Your task to perform on an android device: Go to Google maps Image 0: 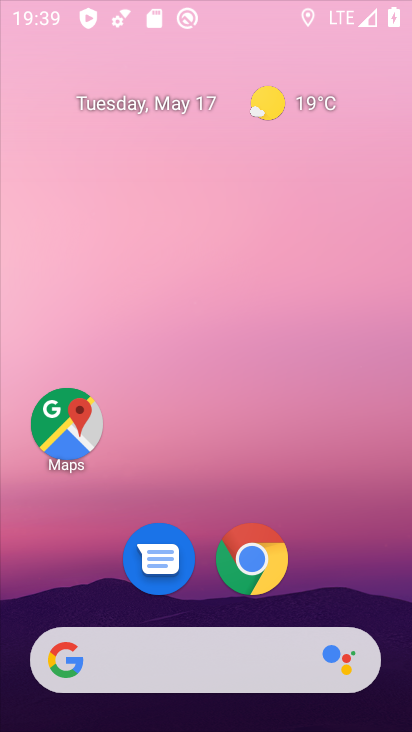
Step 0: drag from (207, 7) to (213, 106)
Your task to perform on an android device: Go to Google maps Image 1: 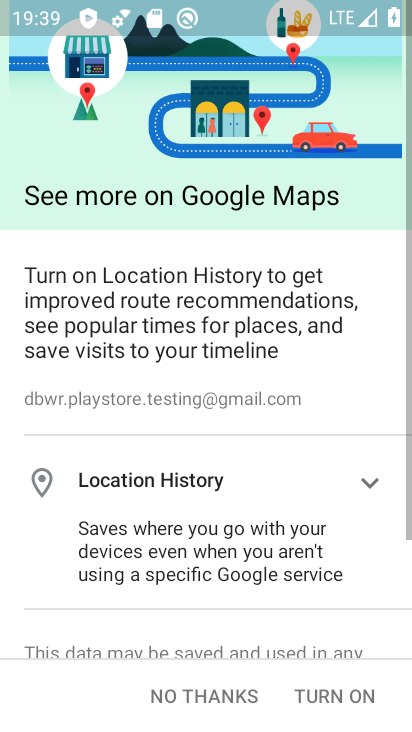
Step 1: press home button
Your task to perform on an android device: Go to Google maps Image 2: 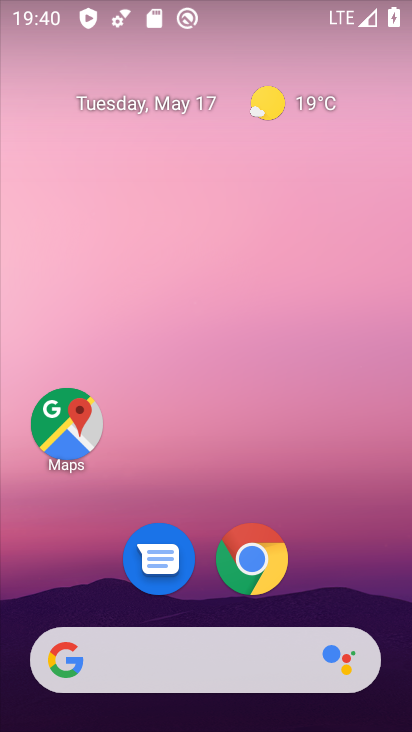
Step 2: drag from (218, 548) to (50, 720)
Your task to perform on an android device: Go to Google maps Image 3: 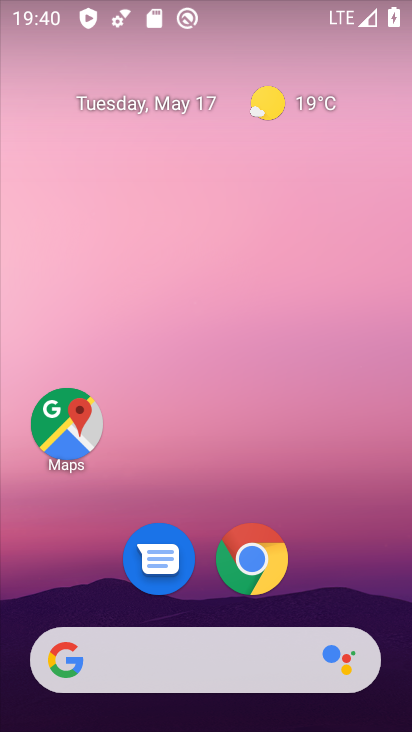
Step 3: drag from (186, 628) to (232, 151)
Your task to perform on an android device: Go to Google maps Image 4: 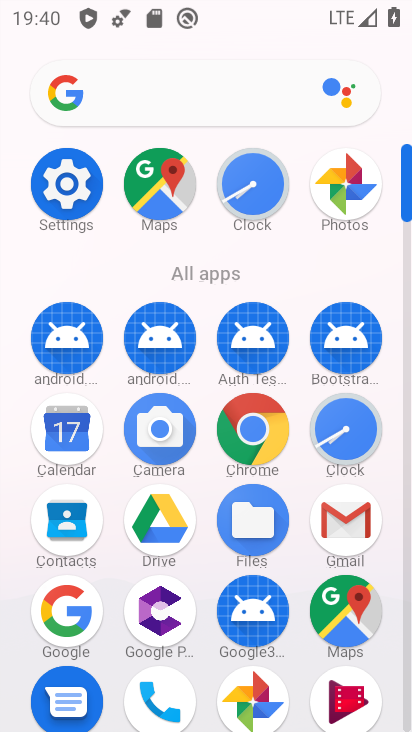
Step 4: click (171, 185)
Your task to perform on an android device: Go to Google maps Image 5: 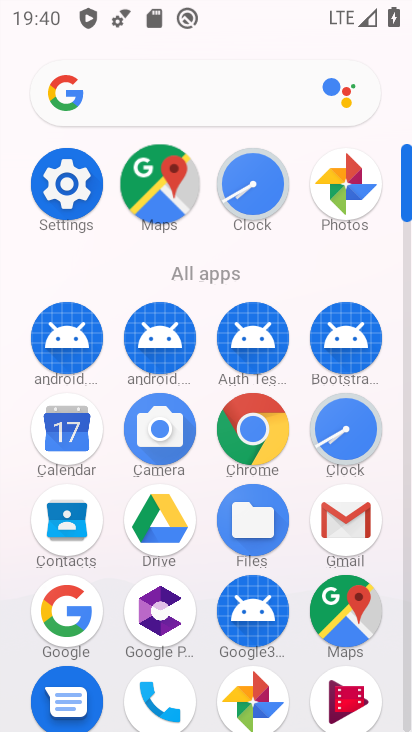
Step 5: click (171, 185)
Your task to perform on an android device: Go to Google maps Image 6: 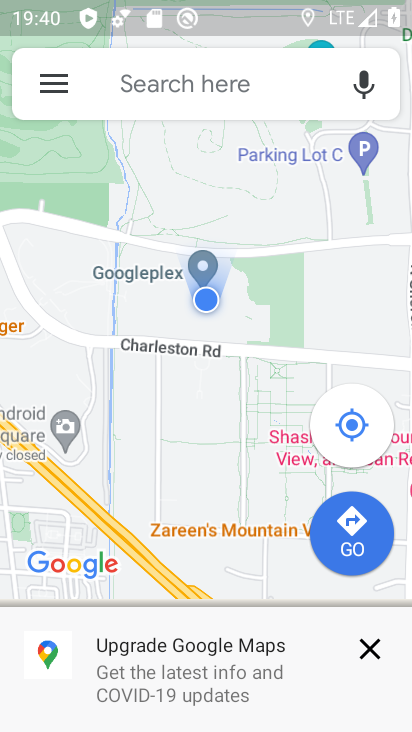
Step 6: task complete